Your task to perform on an android device: star an email in the gmail app Image 0: 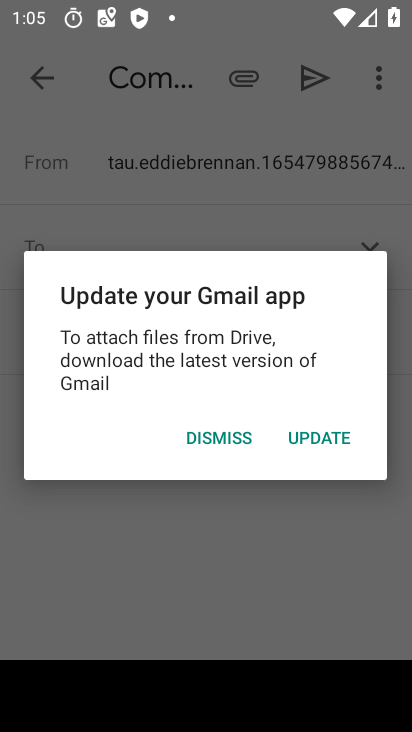
Step 0: click (312, 421)
Your task to perform on an android device: star an email in the gmail app Image 1: 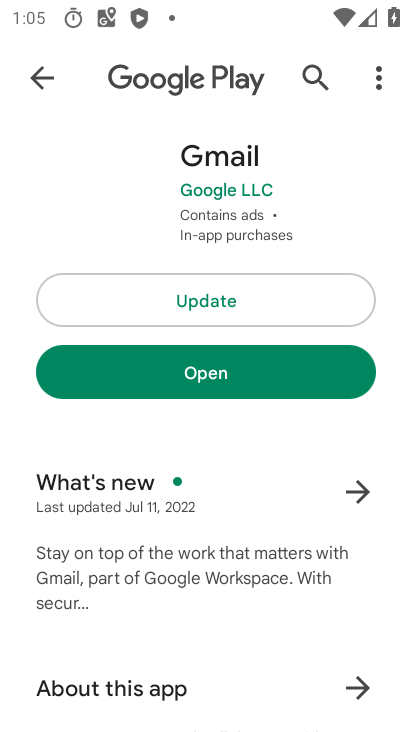
Step 1: press back button
Your task to perform on an android device: star an email in the gmail app Image 2: 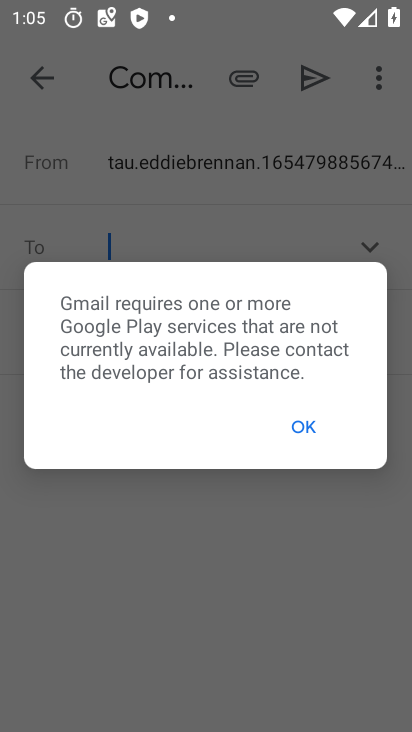
Step 2: press back button
Your task to perform on an android device: star an email in the gmail app Image 3: 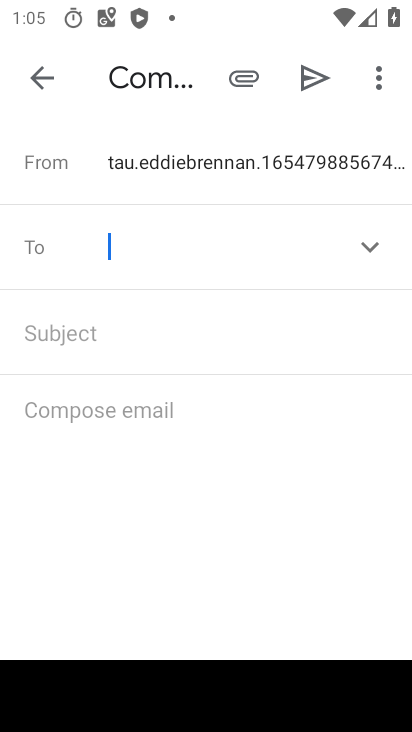
Step 3: press home button
Your task to perform on an android device: star an email in the gmail app Image 4: 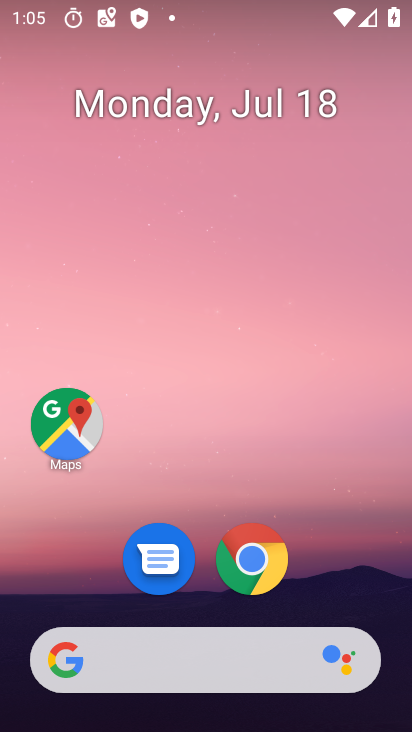
Step 4: drag from (71, 599) to (203, 37)
Your task to perform on an android device: star an email in the gmail app Image 5: 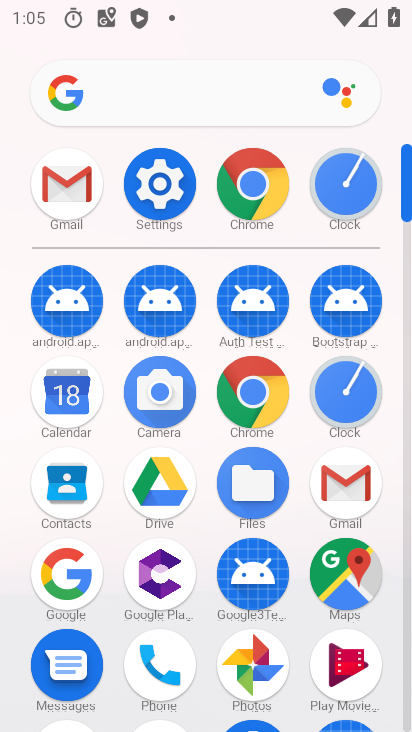
Step 5: click (61, 176)
Your task to perform on an android device: star an email in the gmail app Image 6: 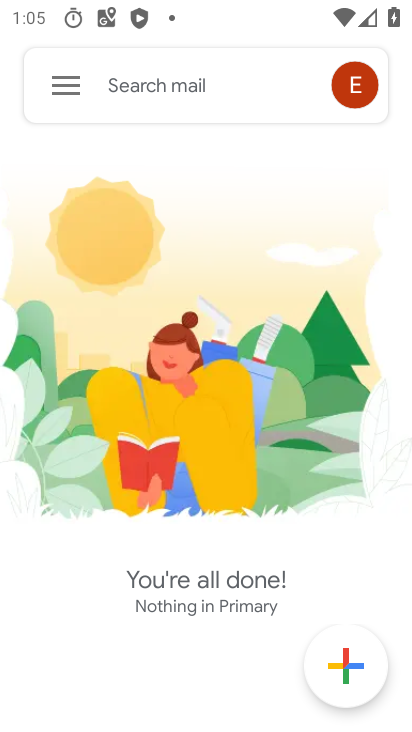
Step 6: click (80, 74)
Your task to perform on an android device: star an email in the gmail app Image 7: 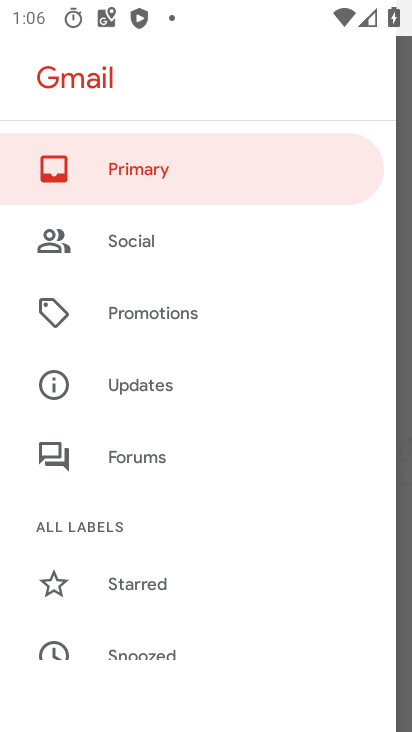
Step 7: drag from (158, 577) to (232, 141)
Your task to perform on an android device: star an email in the gmail app Image 8: 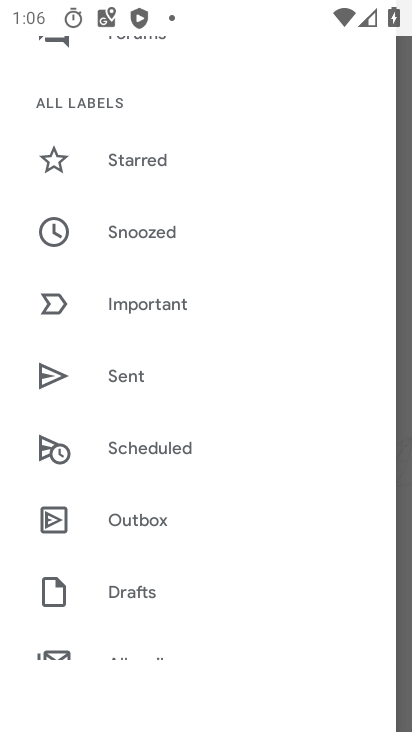
Step 8: drag from (138, 584) to (208, 159)
Your task to perform on an android device: star an email in the gmail app Image 9: 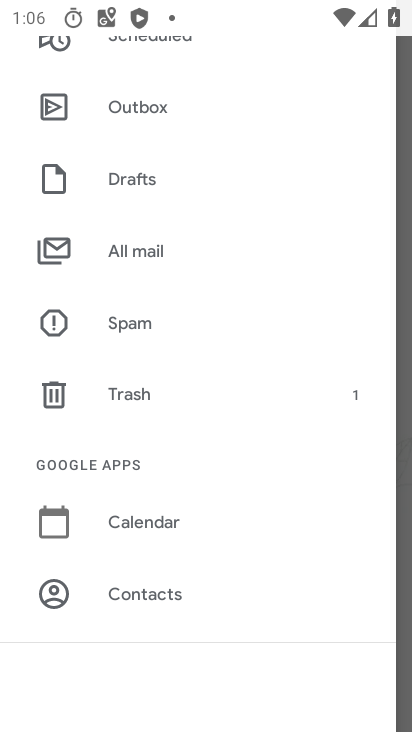
Step 9: click (115, 249)
Your task to perform on an android device: star an email in the gmail app Image 10: 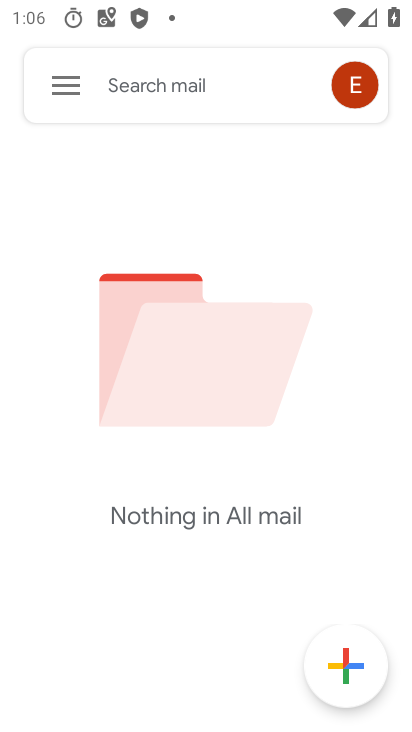
Step 10: task complete